Your task to perform on an android device: check battery use Image 0: 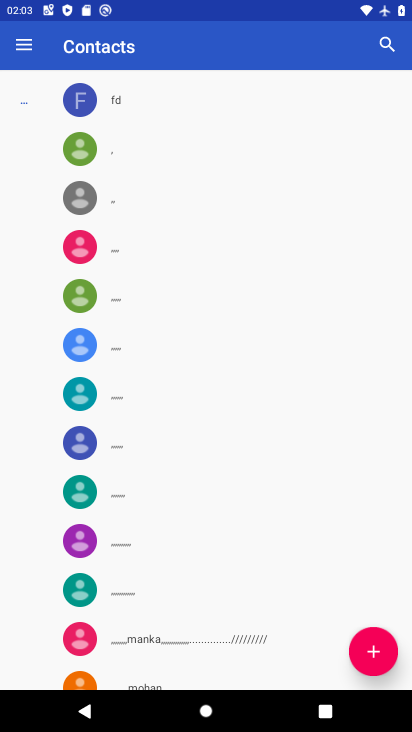
Step 0: press home button
Your task to perform on an android device: check battery use Image 1: 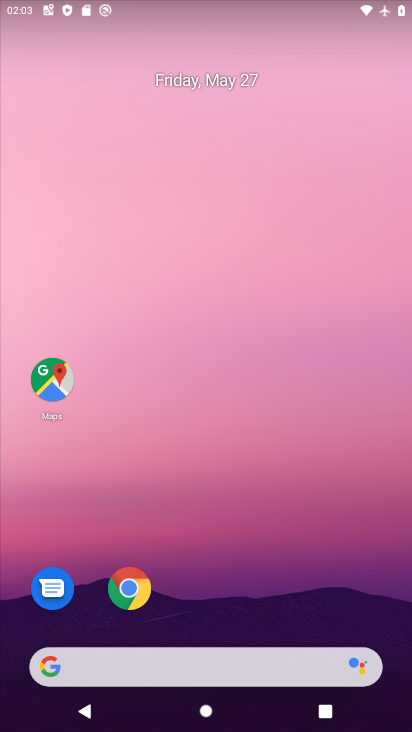
Step 1: drag from (366, 602) to (329, 128)
Your task to perform on an android device: check battery use Image 2: 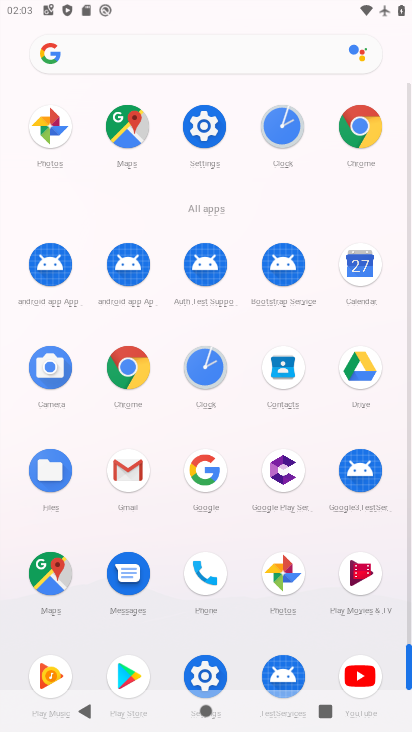
Step 2: click (206, 674)
Your task to perform on an android device: check battery use Image 3: 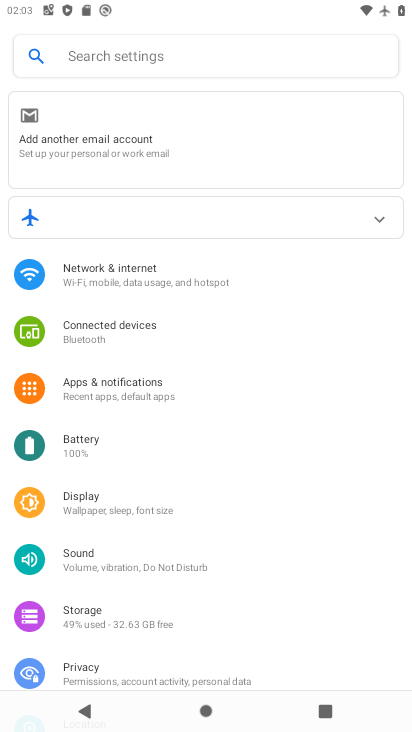
Step 3: click (83, 431)
Your task to perform on an android device: check battery use Image 4: 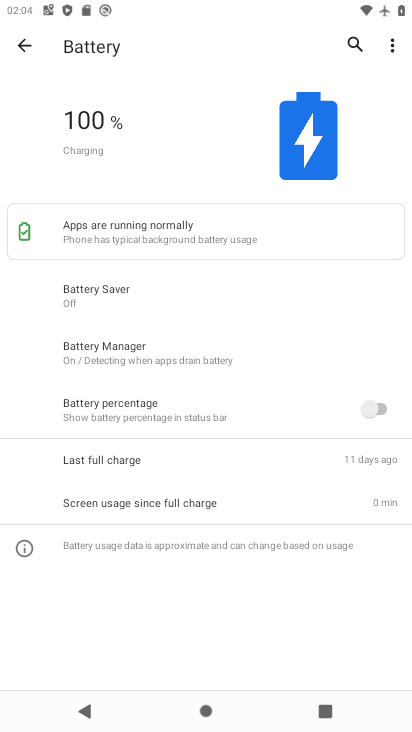
Step 4: click (392, 45)
Your task to perform on an android device: check battery use Image 5: 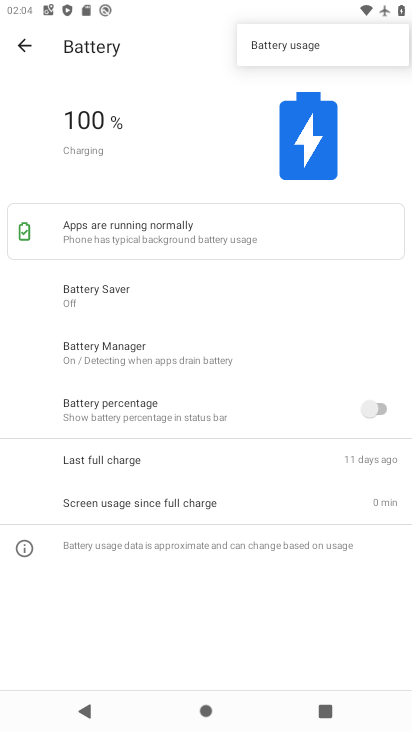
Step 5: click (281, 55)
Your task to perform on an android device: check battery use Image 6: 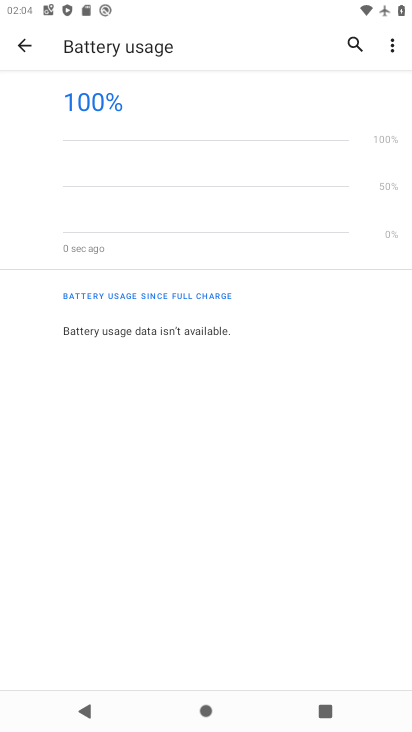
Step 6: task complete